Your task to perform on an android device: turn off airplane mode Image 0: 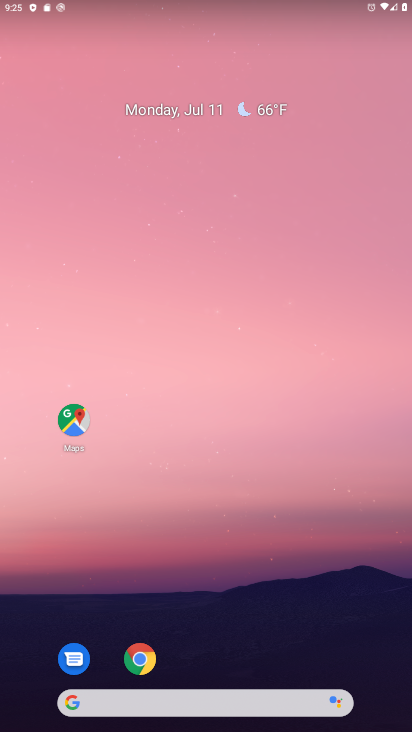
Step 0: drag from (340, 639) to (348, 157)
Your task to perform on an android device: turn off airplane mode Image 1: 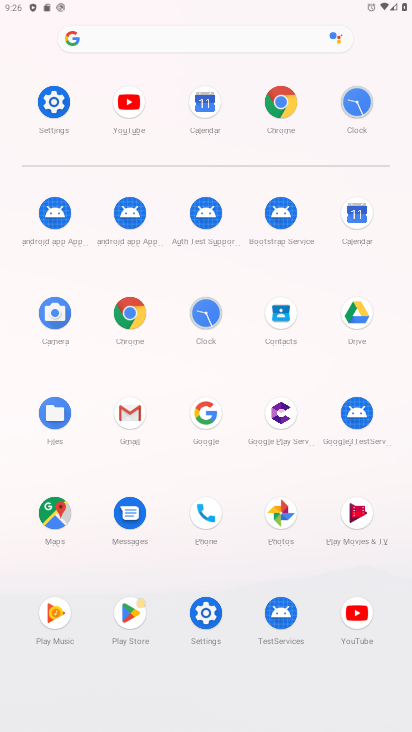
Step 1: click (210, 612)
Your task to perform on an android device: turn off airplane mode Image 2: 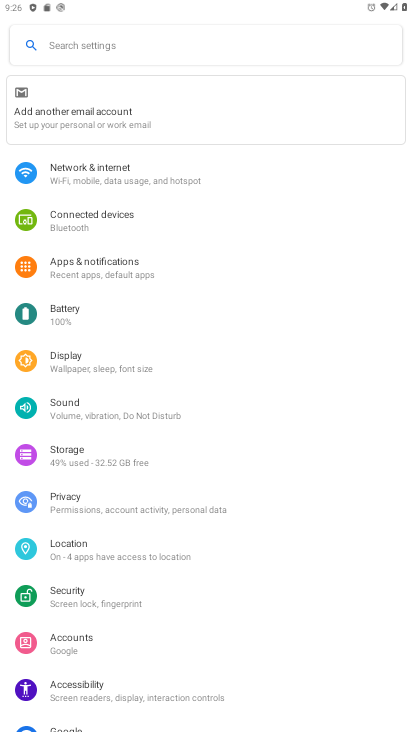
Step 2: click (138, 178)
Your task to perform on an android device: turn off airplane mode Image 3: 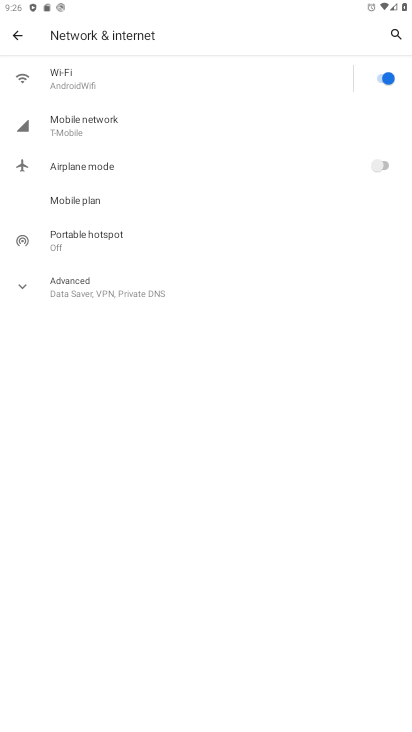
Step 3: task complete